Your task to perform on an android device: open app "Adobe Express: Graphic Design" Image 0: 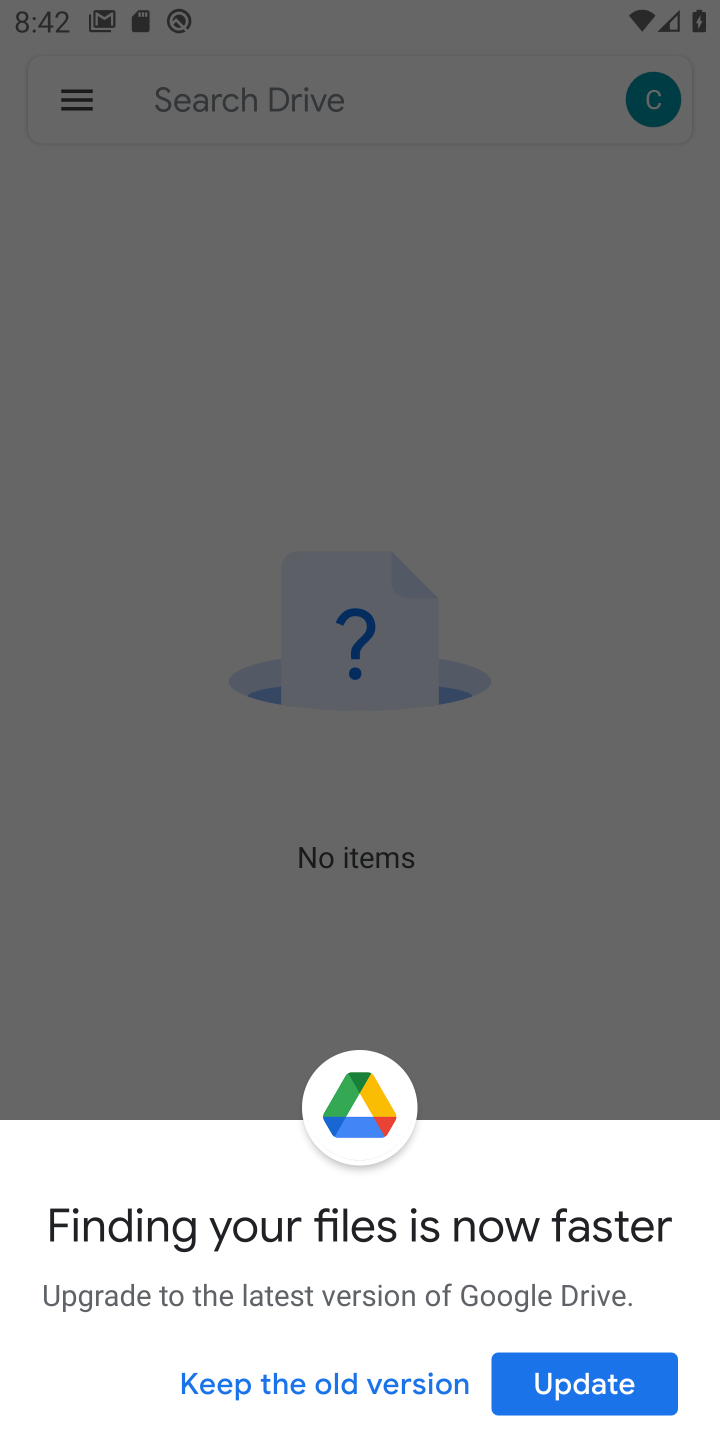
Step 0: press home button
Your task to perform on an android device: open app "Adobe Express: Graphic Design" Image 1: 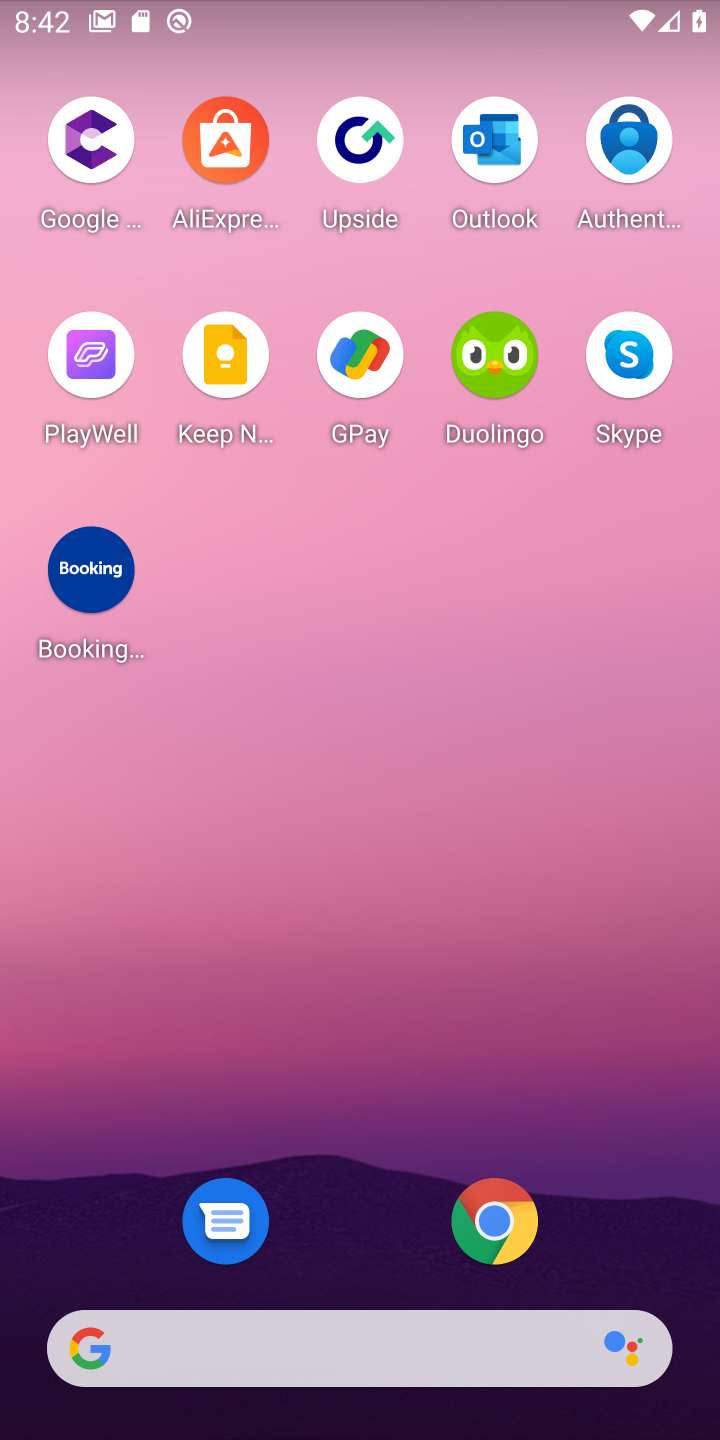
Step 1: drag from (340, 1211) to (246, 187)
Your task to perform on an android device: open app "Adobe Express: Graphic Design" Image 2: 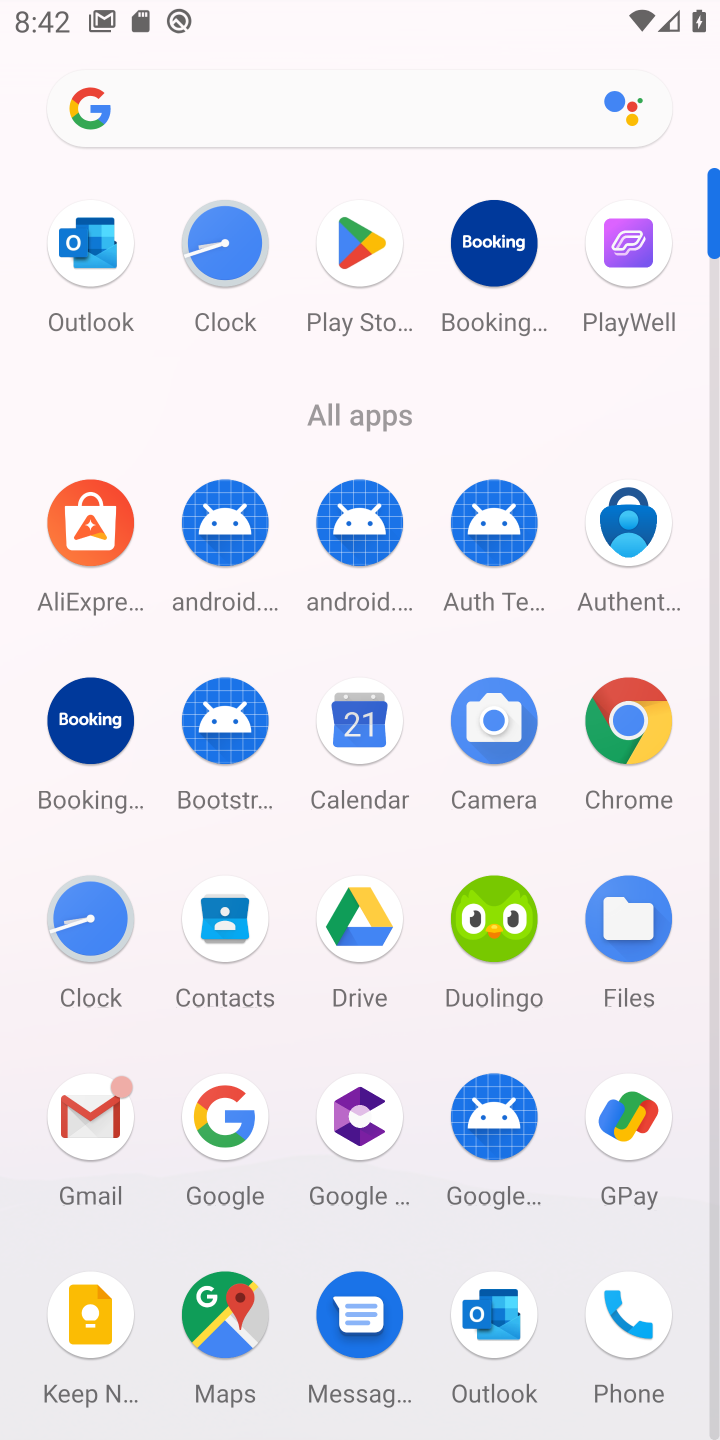
Step 2: click (361, 247)
Your task to perform on an android device: open app "Adobe Express: Graphic Design" Image 3: 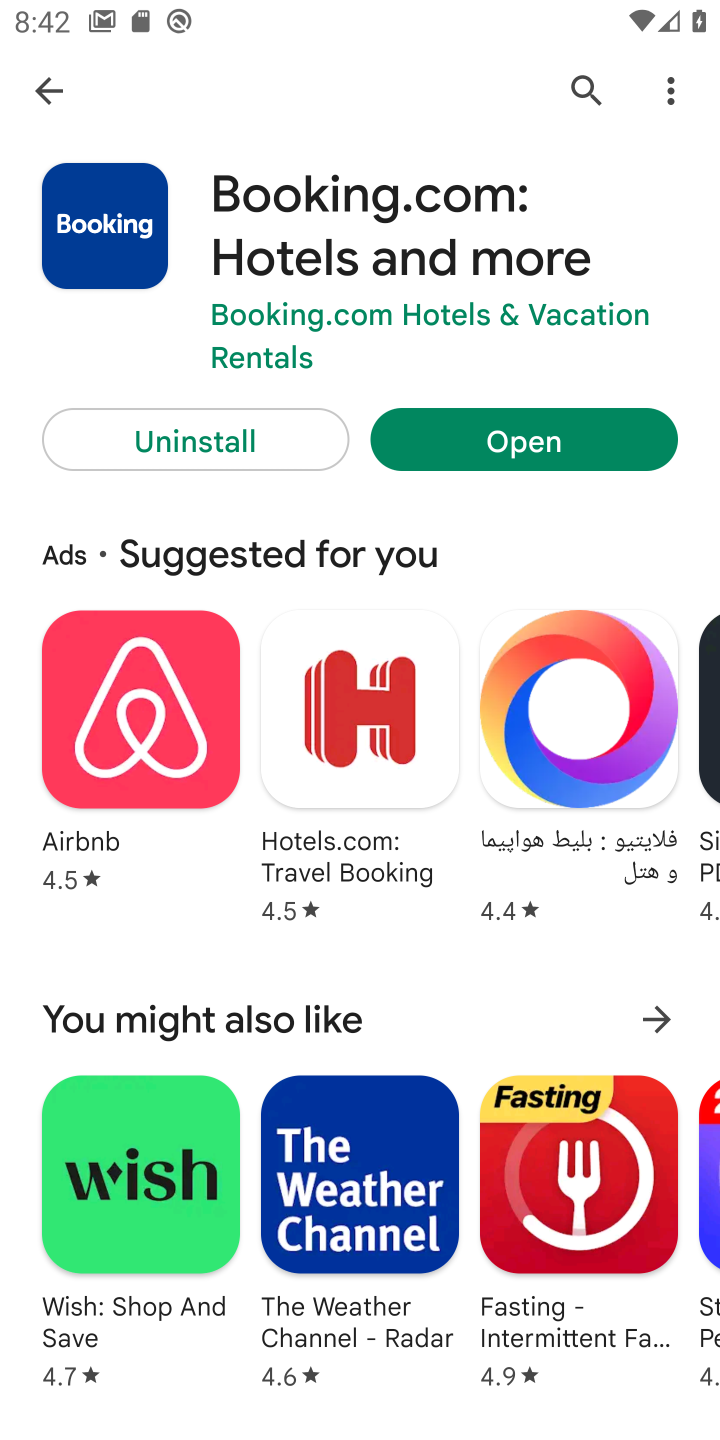
Step 3: click (592, 81)
Your task to perform on an android device: open app "Adobe Express: Graphic Design" Image 4: 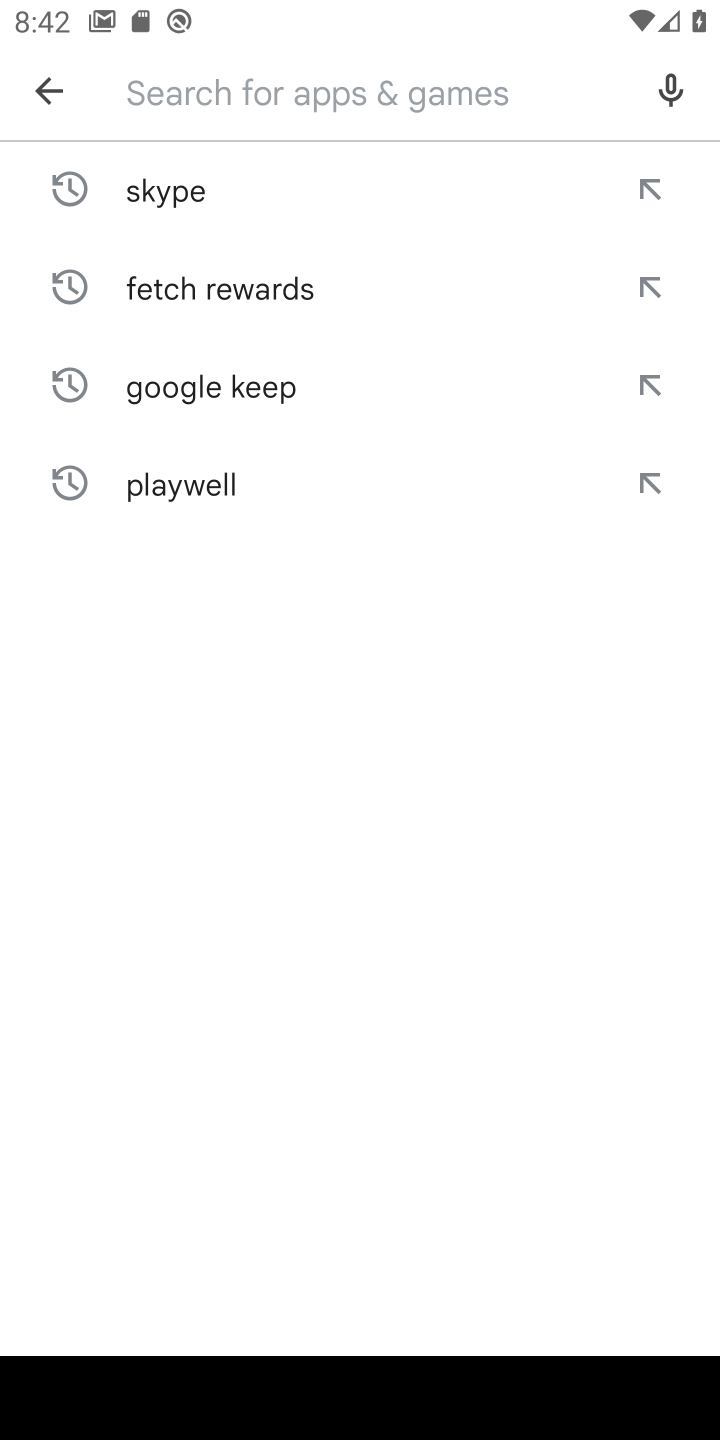
Step 4: type "Adobe Express: Graphic Design"
Your task to perform on an android device: open app "Adobe Express: Graphic Design" Image 5: 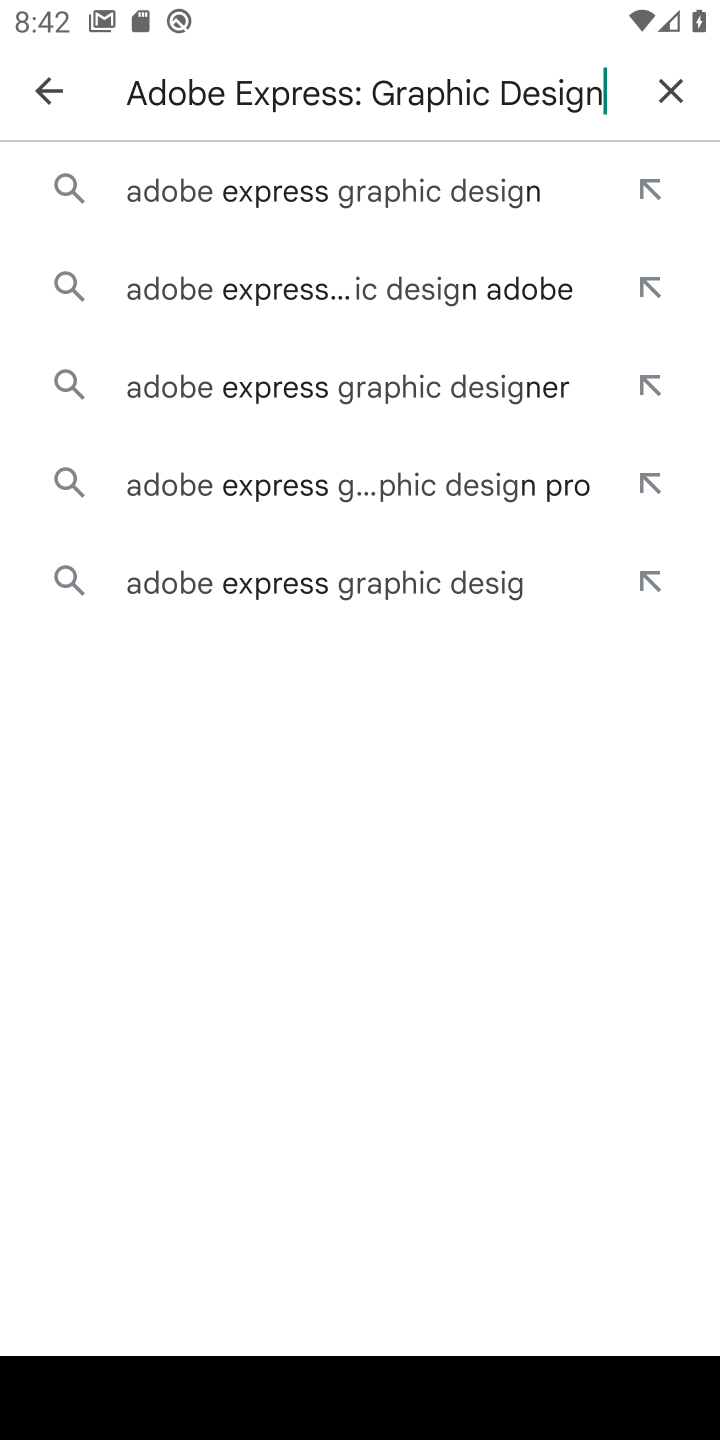
Step 5: type ""
Your task to perform on an android device: open app "Adobe Express: Graphic Design" Image 6: 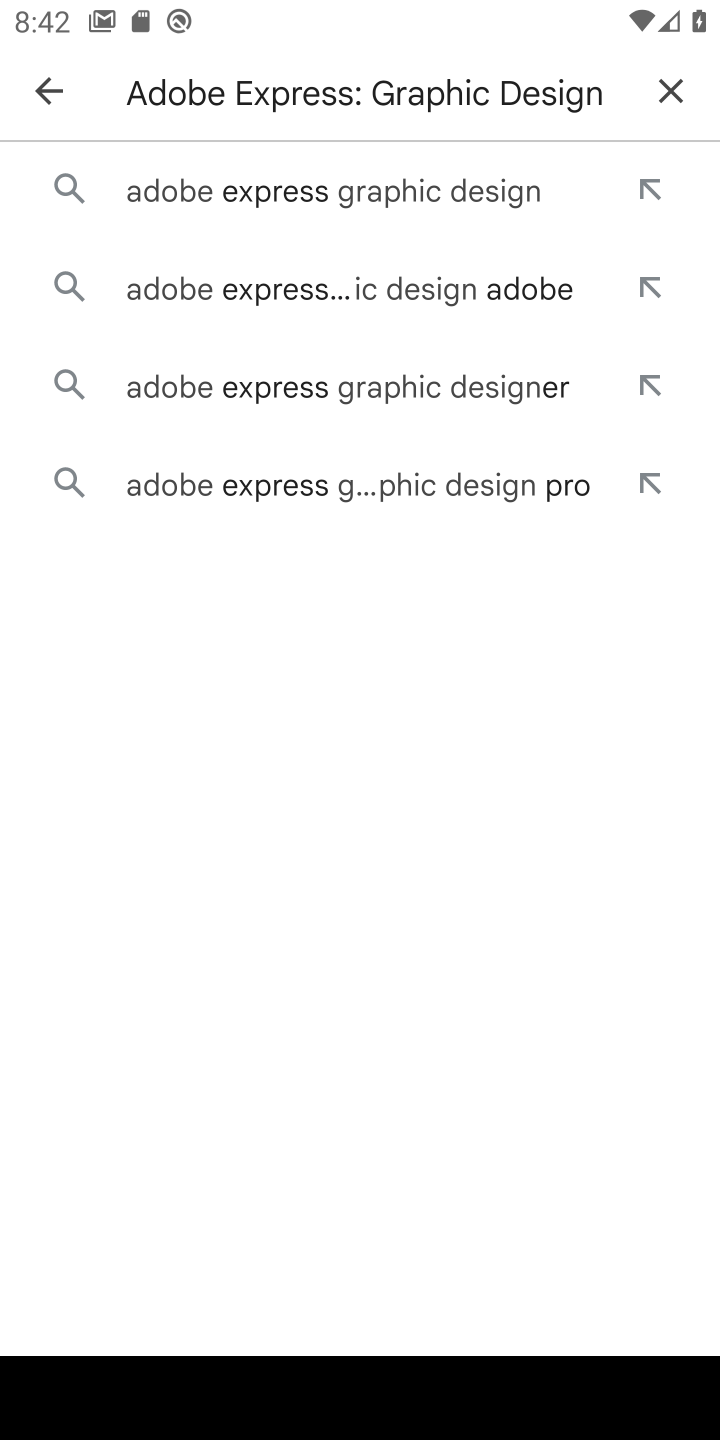
Step 6: click (484, 194)
Your task to perform on an android device: open app "Adobe Express: Graphic Design" Image 7: 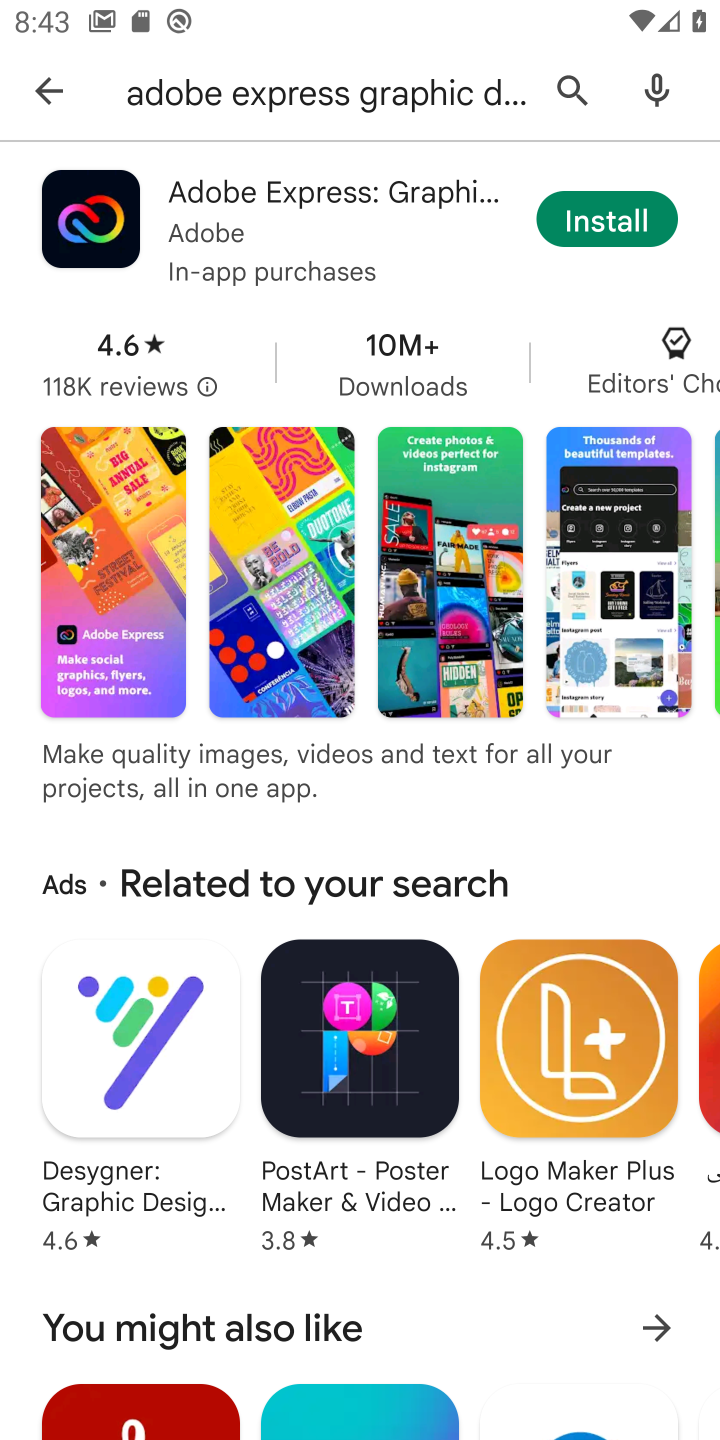
Step 7: task complete